Your task to perform on an android device: What's on my calendar tomorrow? Image 0: 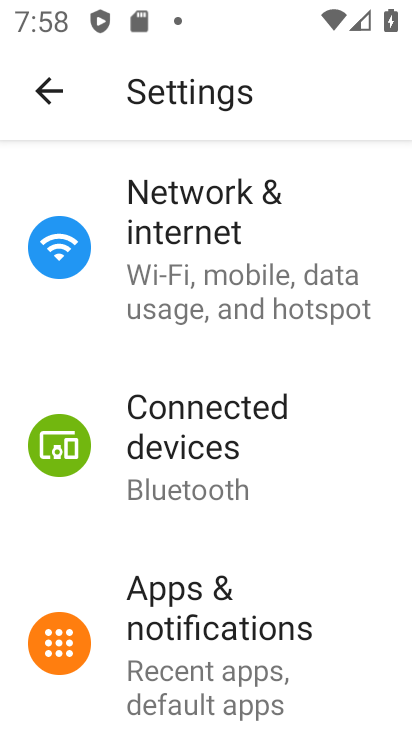
Step 0: drag from (242, 532) to (180, 161)
Your task to perform on an android device: What's on my calendar tomorrow? Image 1: 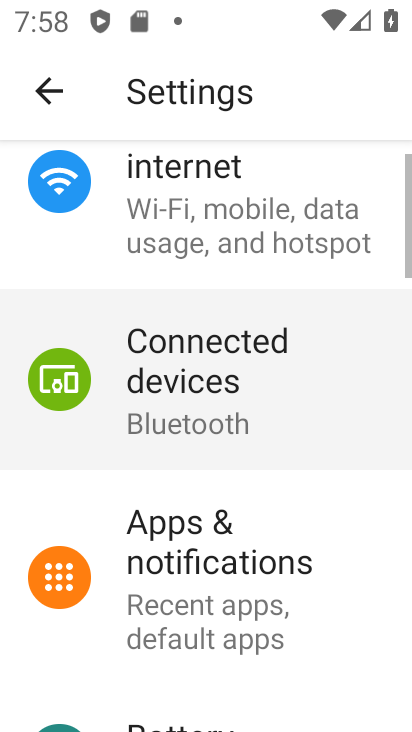
Step 1: drag from (161, 516) to (158, 166)
Your task to perform on an android device: What's on my calendar tomorrow? Image 2: 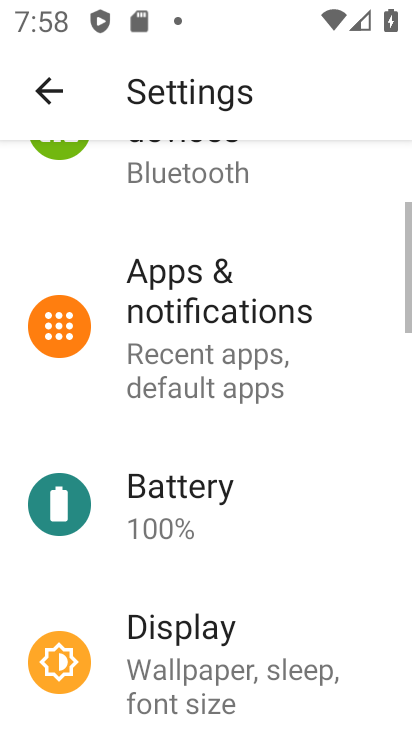
Step 2: drag from (176, 507) to (194, 239)
Your task to perform on an android device: What's on my calendar tomorrow? Image 3: 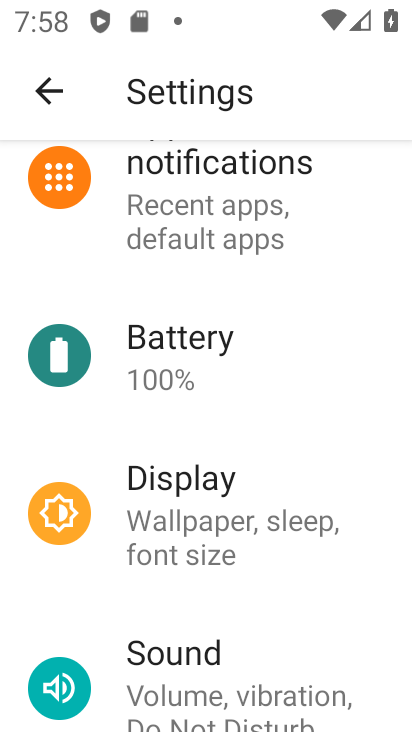
Step 3: press back button
Your task to perform on an android device: What's on my calendar tomorrow? Image 4: 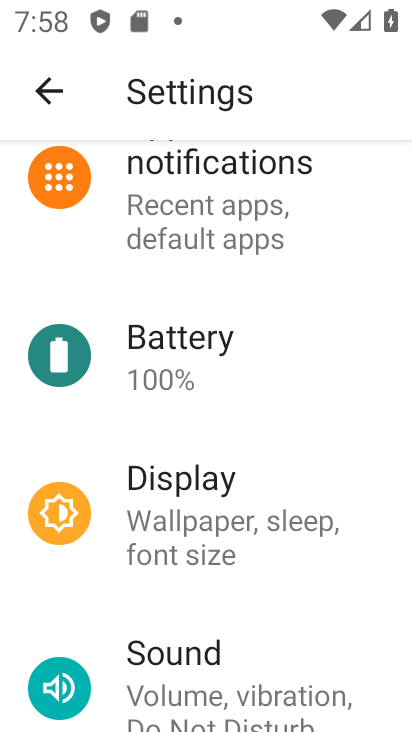
Step 4: press back button
Your task to perform on an android device: What's on my calendar tomorrow? Image 5: 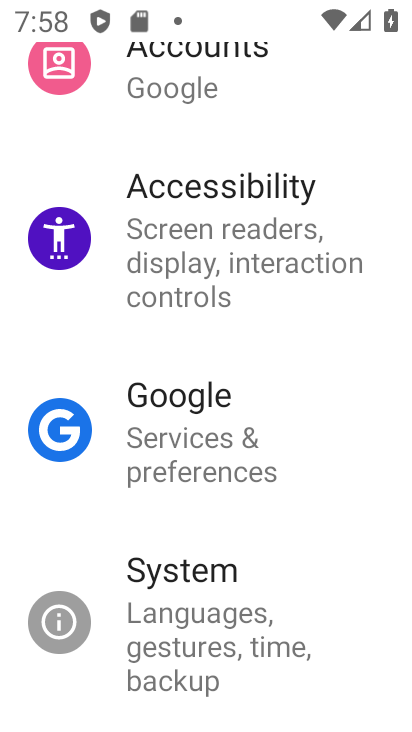
Step 5: press back button
Your task to perform on an android device: What's on my calendar tomorrow? Image 6: 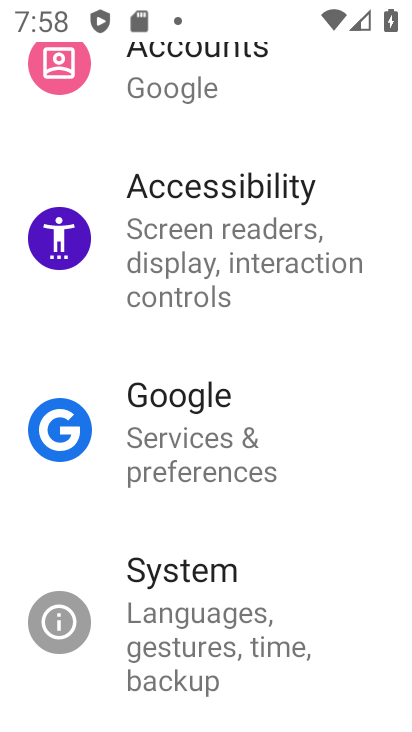
Step 6: press back button
Your task to perform on an android device: What's on my calendar tomorrow? Image 7: 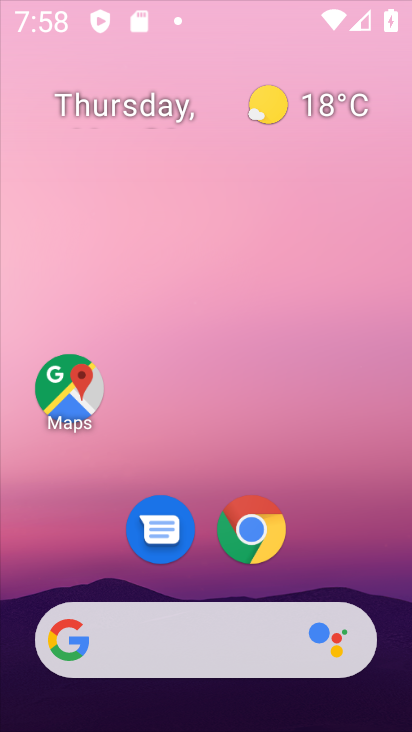
Step 7: press back button
Your task to perform on an android device: What's on my calendar tomorrow? Image 8: 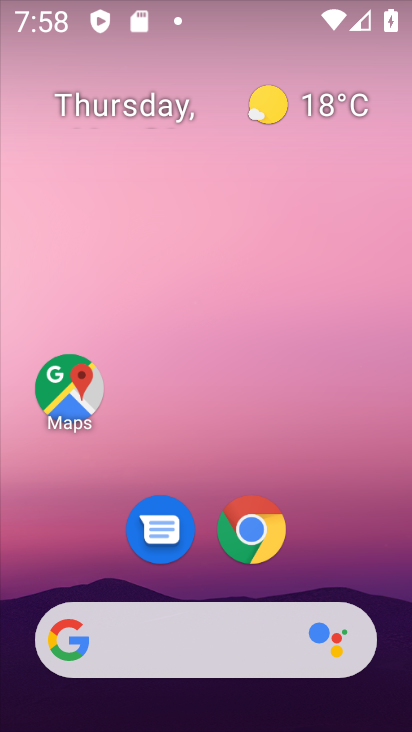
Step 8: drag from (260, 690) to (187, 312)
Your task to perform on an android device: What's on my calendar tomorrow? Image 9: 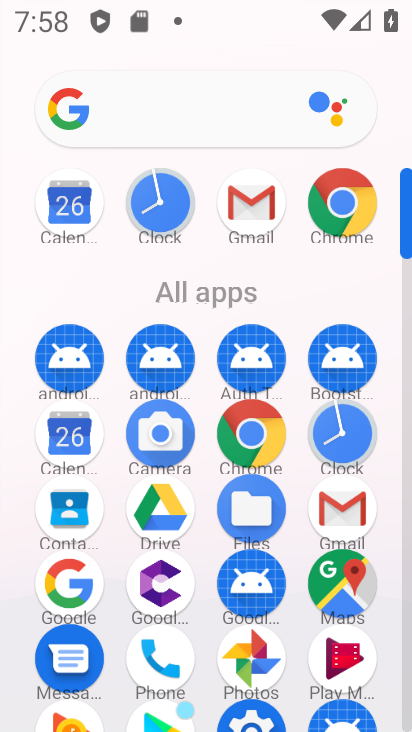
Step 9: click (65, 439)
Your task to perform on an android device: What's on my calendar tomorrow? Image 10: 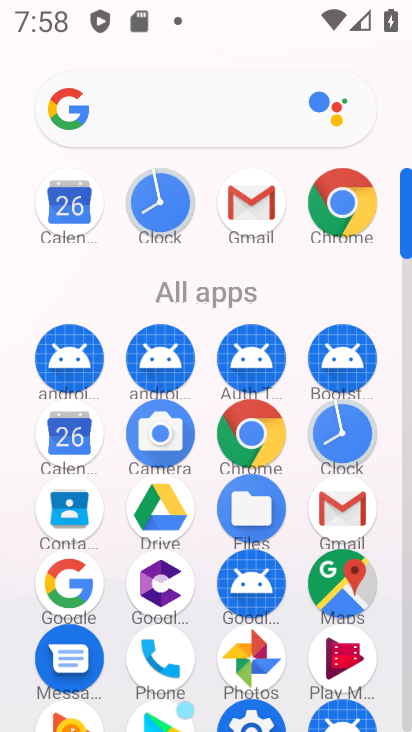
Step 10: click (65, 439)
Your task to perform on an android device: What's on my calendar tomorrow? Image 11: 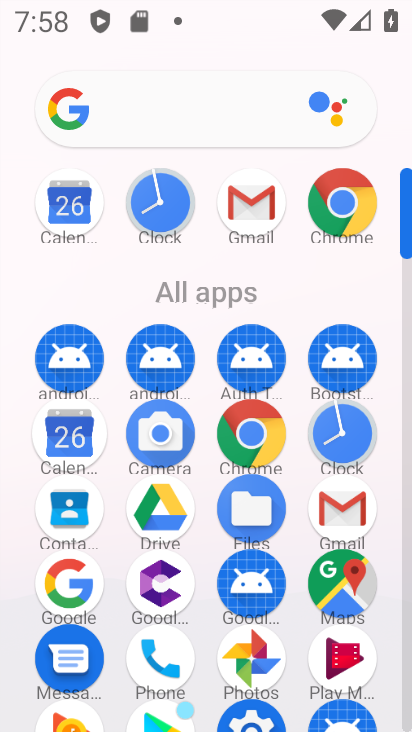
Step 11: click (70, 440)
Your task to perform on an android device: What's on my calendar tomorrow? Image 12: 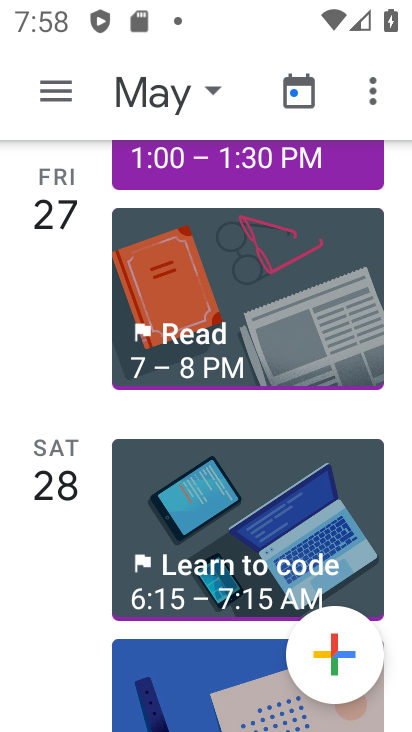
Step 12: task complete